Your task to perform on an android device: add a contact in the contacts app Image 0: 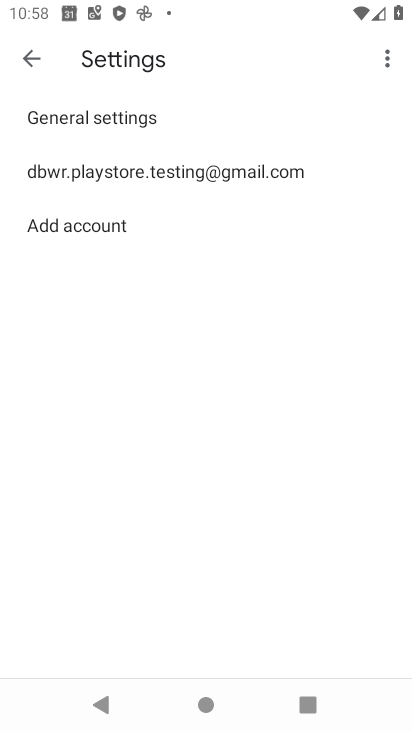
Step 0: press home button
Your task to perform on an android device: add a contact in the contacts app Image 1: 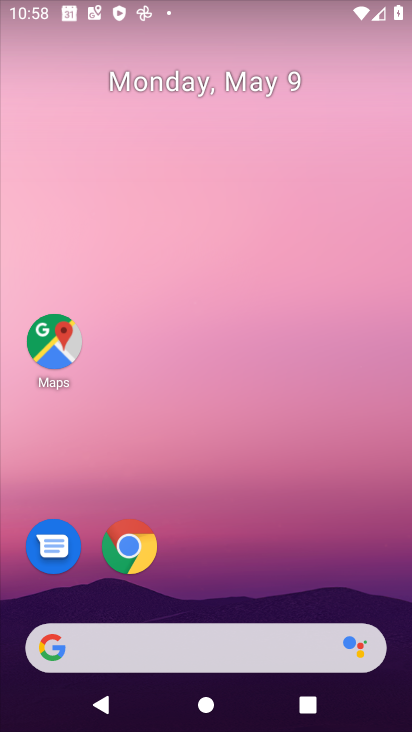
Step 1: drag from (268, 707) to (260, 18)
Your task to perform on an android device: add a contact in the contacts app Image 2: 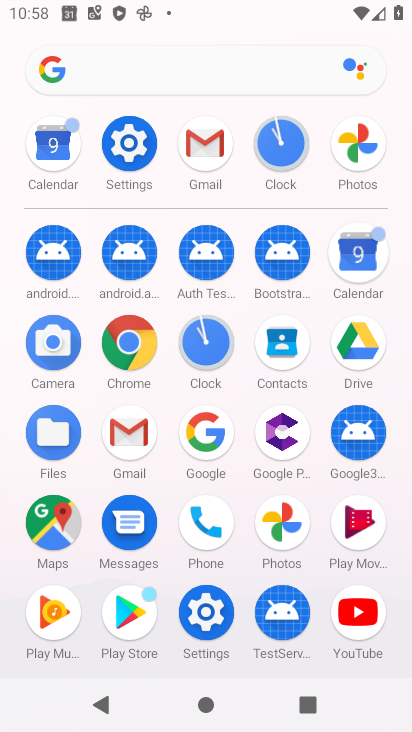
Step 2: click (283, 353)
Your task to perform on an android device: add a contact in the contacts app Image 3: 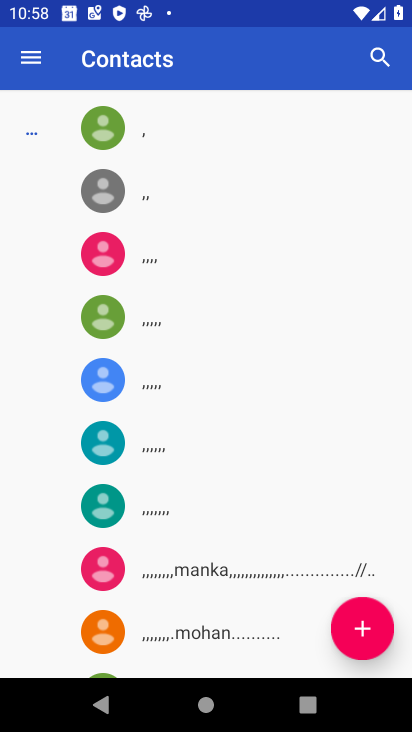
Step 3: click (360, 621)
Your task to perform on an android device: add a contact in the contacts app Image 4: 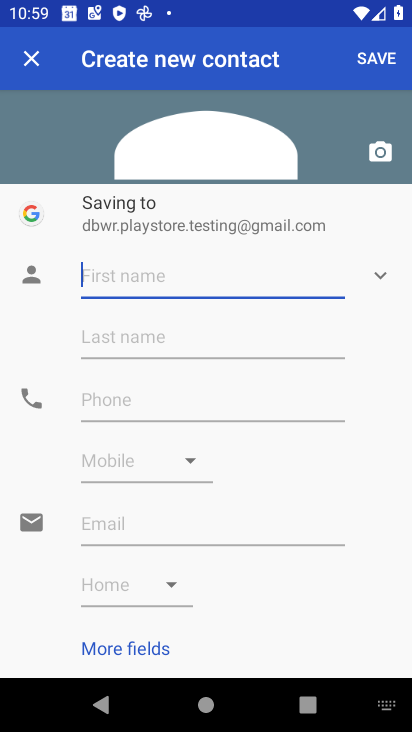
Step 4: type "nn"
Your task to perform on an android device: add a contact in the contacts app Image 5: 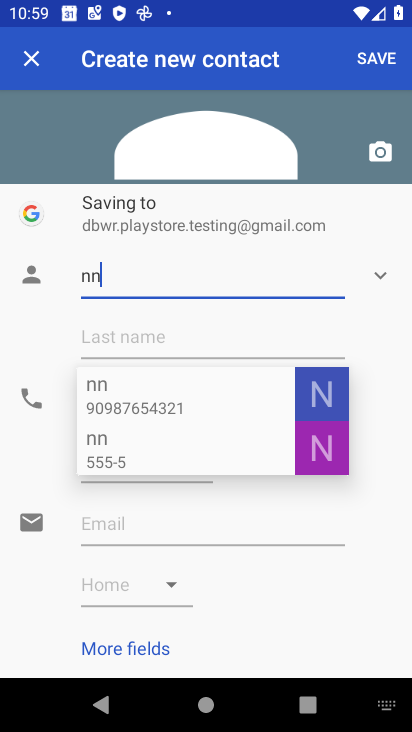
Step 5: click (235, 337)
Your task to perform on an android device: add a contact in the contacts app Image 6: 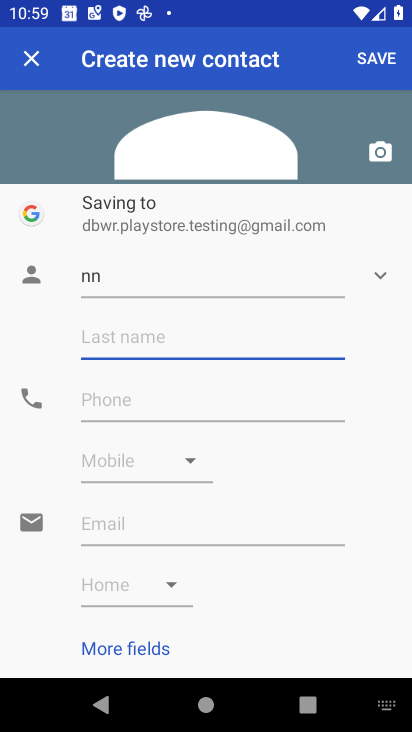
Step 6: click (108, 400)
Your task to perform on an android device: add a contact in the contacts app Image 7: 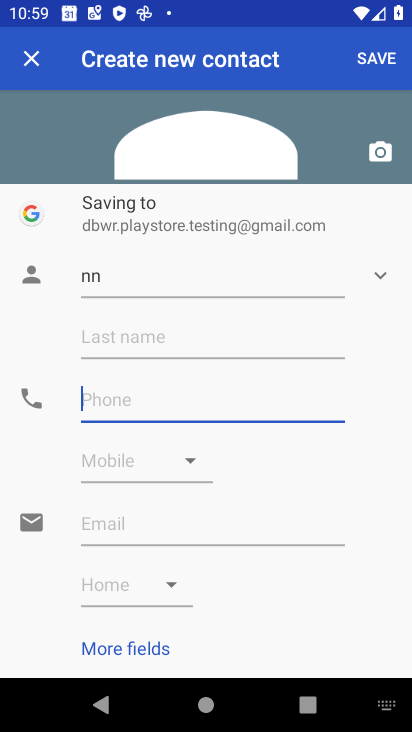
Step 7: click (188, 409)
Your task to perform on an android device: add a contact in the contacts app Image 8: 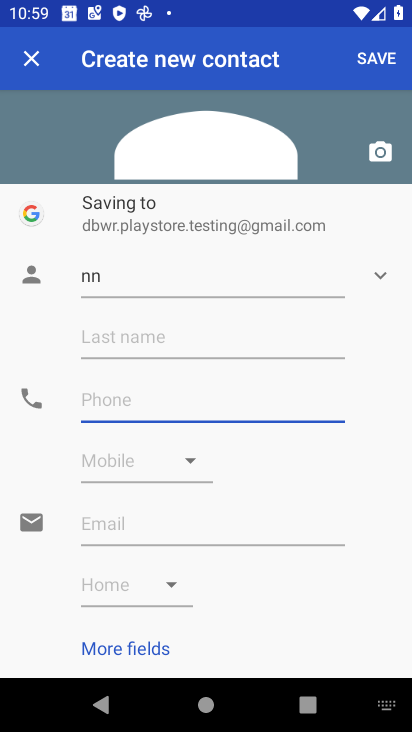
Step 8: type "7798"
Your task to perform on an android device: add a contact in the contacts app Image 9: 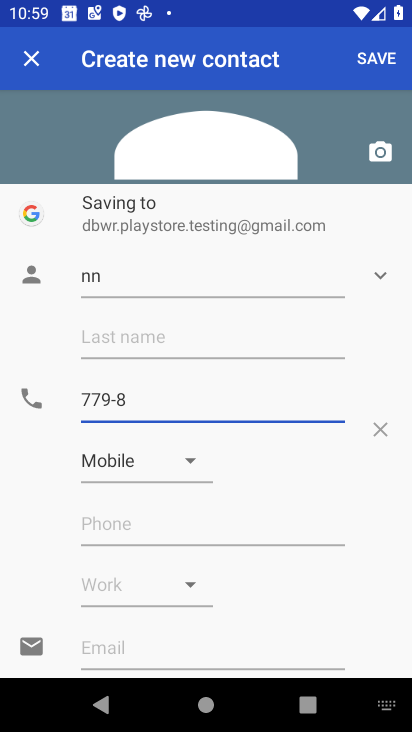
Step 9: click (385, 62)
Your task to perform on an android device: add a contact in the contacts app Image 10: 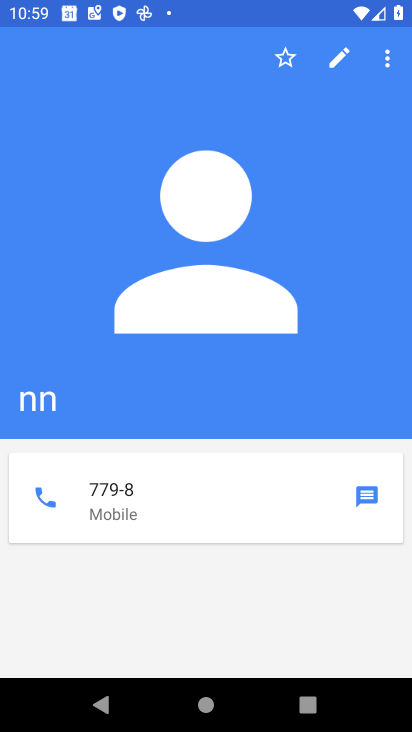
Step 10: task complete